Your task to perform on an android device: toggle javascript in the chrome app Image 0: 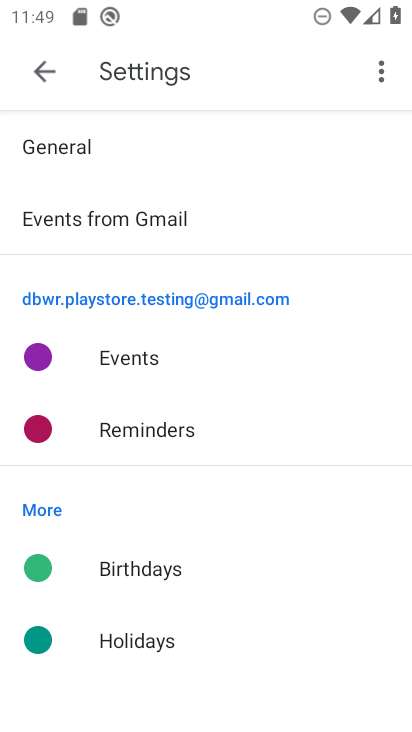
Step 0: press home button
Your task to perform on an android device: toggle javascript in the chrome app Image 1: 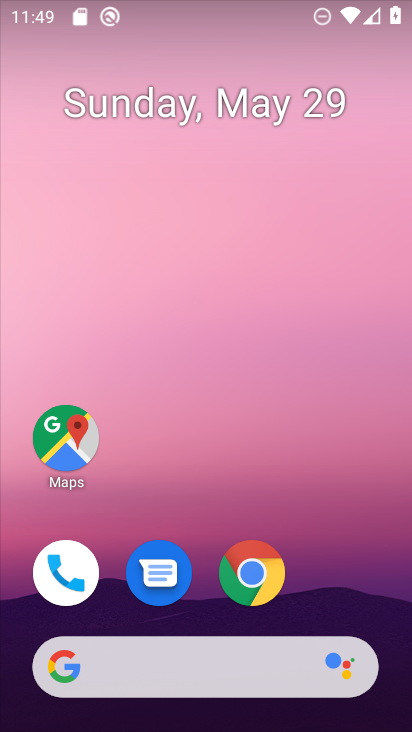
Step 1: click (252, 579)
Your task to perform on an android device: toggle javascript in the chrome app Image 2: 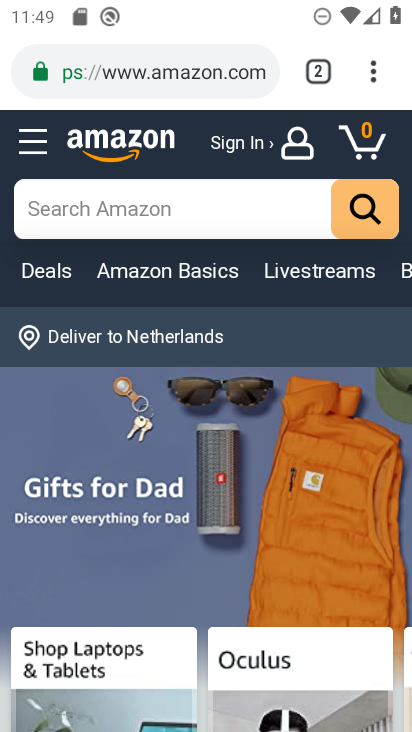
Step 2: drag from (370, 71) to (122, 571)
Your task to perform on an android device: toggle javascript in the chrome app Image 3: 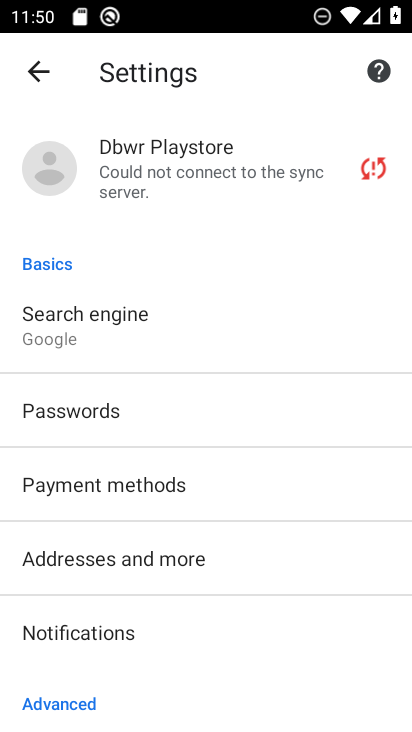
Step 3: drag from (259, 696) to (222, 333)
Your task to perform on an android device: toggle javascript in the chrome app Image 4: 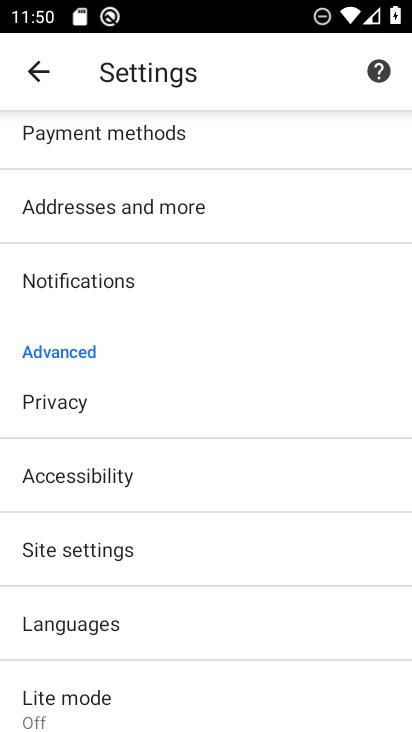
Step 4: click (110, 545)
Your task to perform on an android device: toggle javascript in the chrome app Image 5: 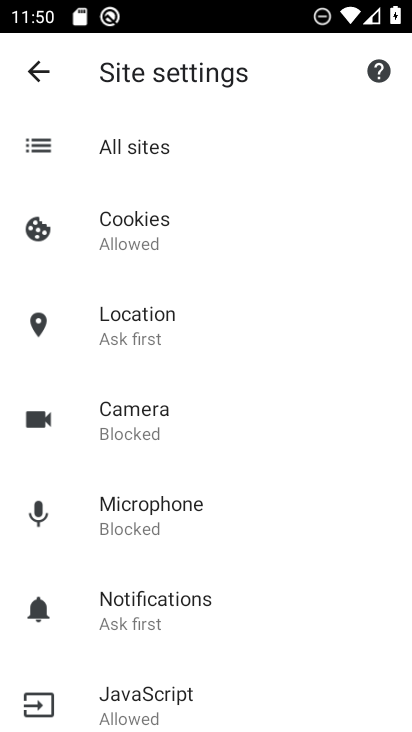
Step 5: click (178, 694)
Your task to perform on an android device: toggle javascript in the chrome app Image 6: 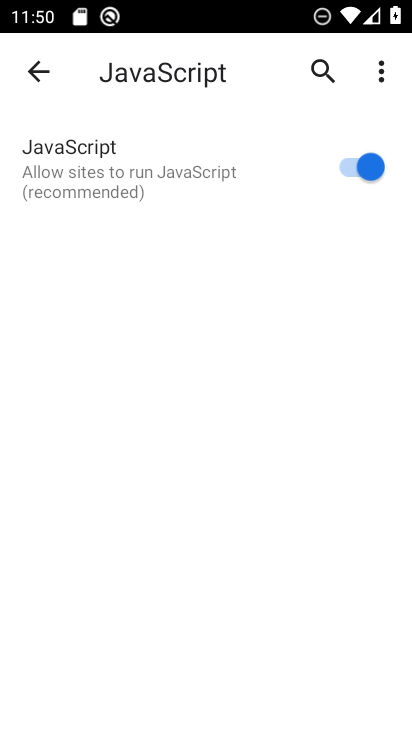
Step 6: click (340, 169)
Your task to perform on an android device: toggle javascript in the chrome app Image 7: 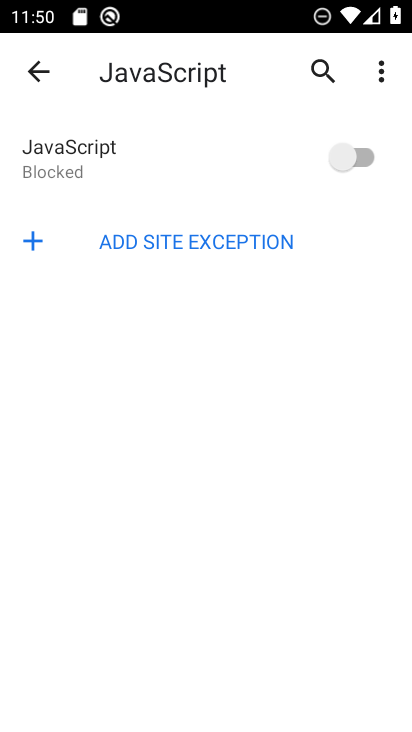
Step 7: task complete